Your task to perform on an android device: Check the weather Image 0: 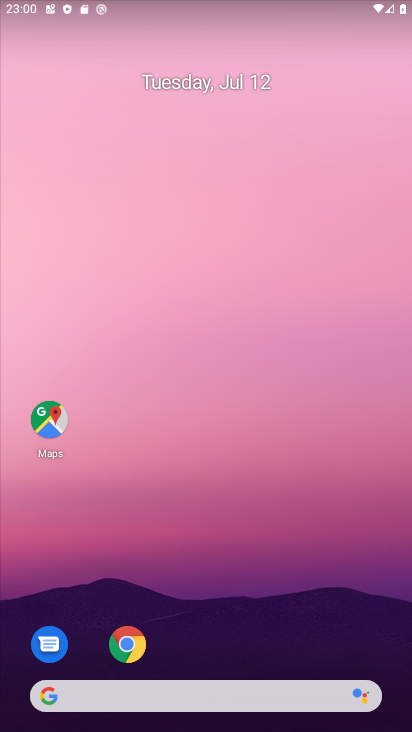
Step 0: click (272, 708)
Your task to perform on an android device: Check the weather Image 1: 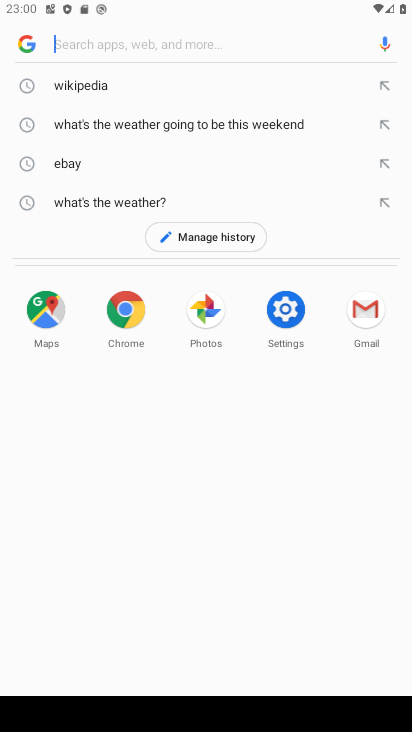
Step 1: click (100, 198)
Your task to perform on an android device: Check the weather Image 2: 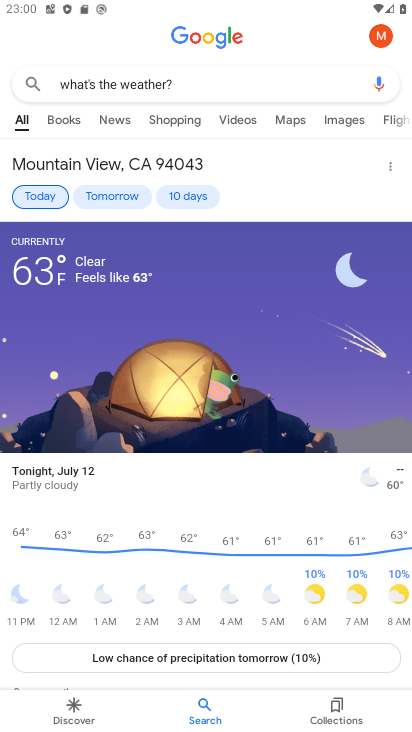
Step 2: task complete